Your task to perform on an android device: open app "DoorDash - Food Delivery" (install if not already installed) and go to login screen Image 0: 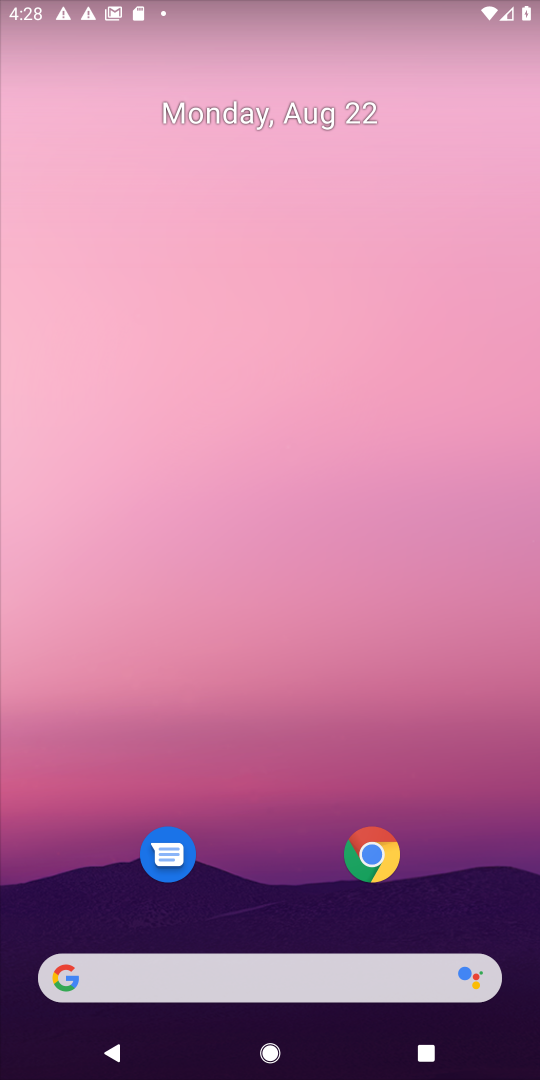
Step 0: drag from (266, 891) to (266, 82)
Your task to perform on an android device: open app "DoorDash - Food Delivery" (install if not already installed) and go to login screen Image 1: 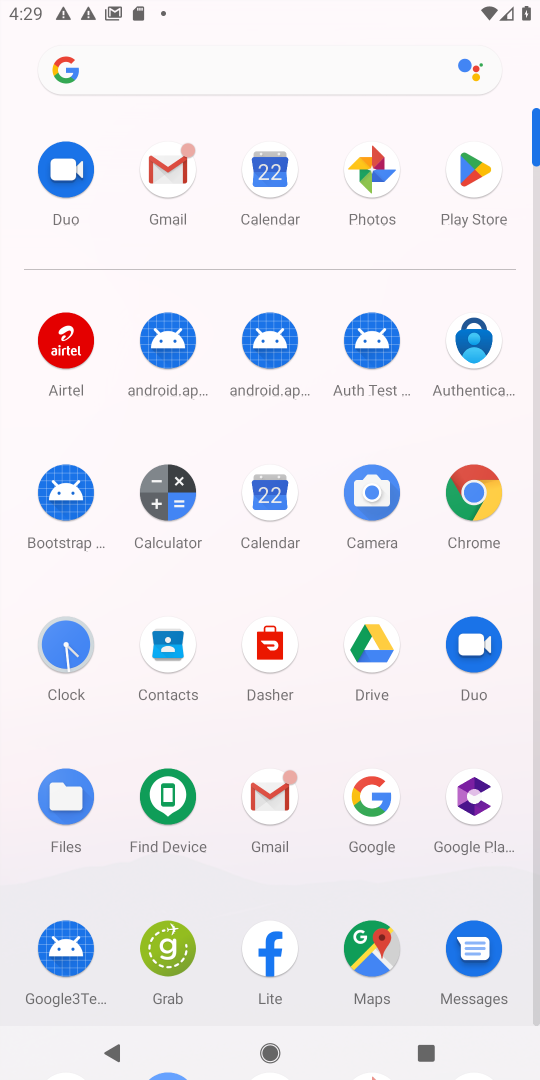
Step 1: click (469, 170)
Your task to perform on an android device: open app "DoorDash - Food Delivery" (install if not already installed) and go to login screen Image 2: 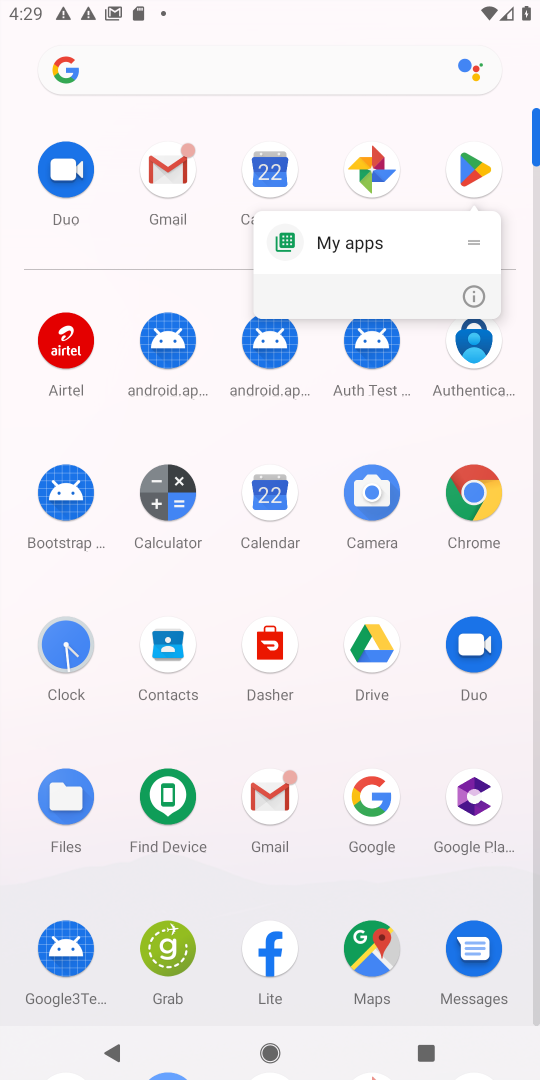
Step 2: click (469, 170)
Your task to perform on an android device: open app "DoorDash - Food Delivery" (install if not already installed) and go to login screen Image 3: 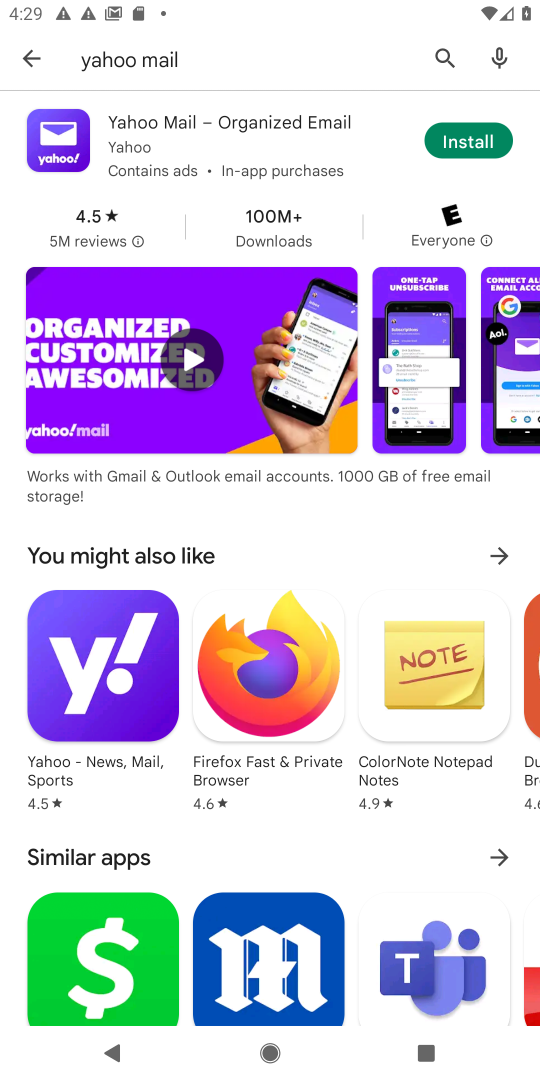
Step 3: click (440, 53)
Your task to perform on an android device: open app "DoorDash - Food Delivery" (install if not already installed) and go to login screen Image 4: 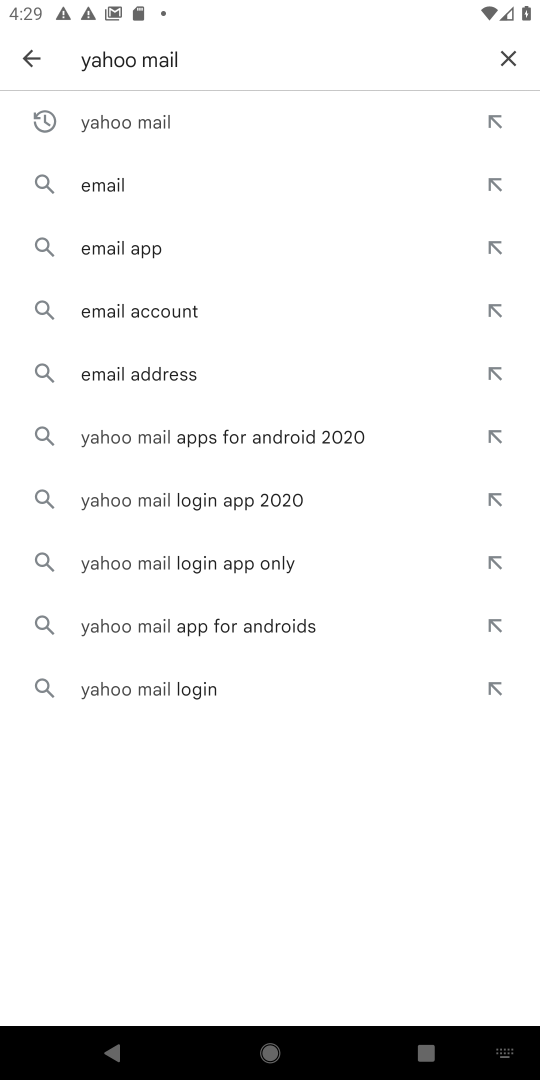
Step 4: click (501, 61)
Your task to perform on an android device: open app "DoorDash - Food Delivery" (install if not already installed) and go to login screen Image 5: 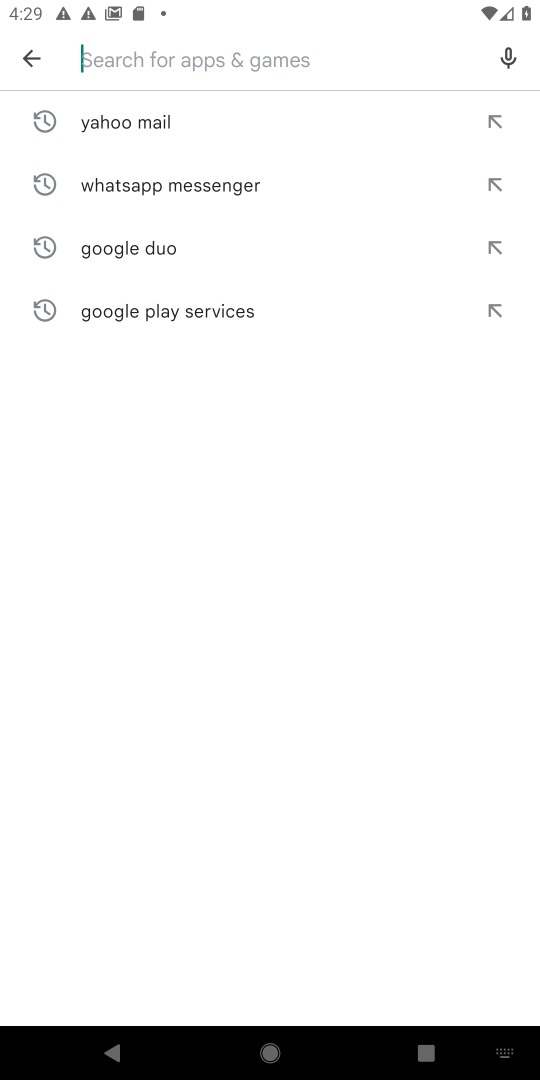
Step 5: type "DoorDash - Food Delivery"
Your task to perform on an android device: open app "DoorDash - Food Delivery" (install if not already installed) and go to login screen Image 6: 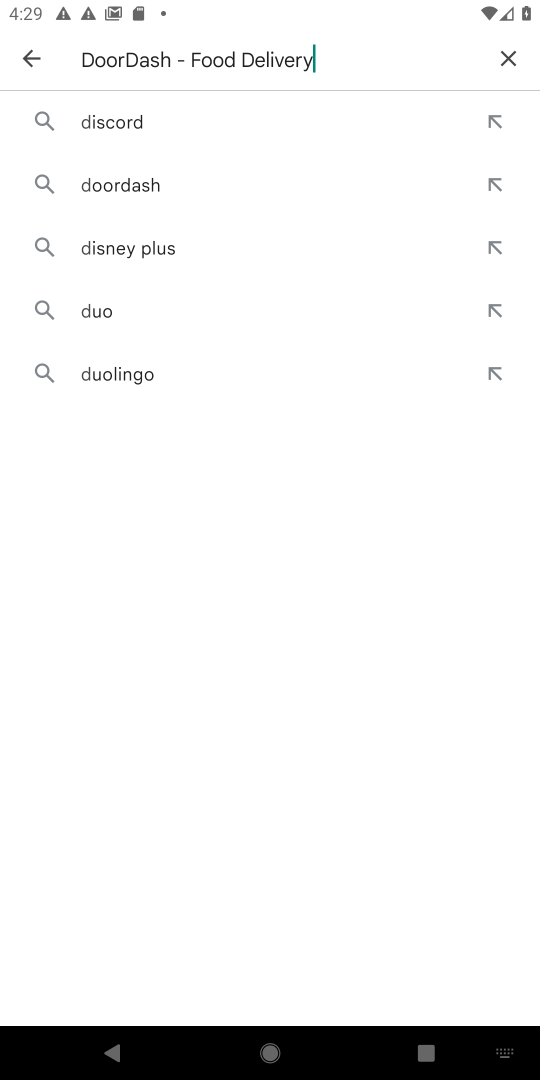
Step 6: type ""
Your task to perform on an android device: open app "DoorDash - Food Delivery" (install if not already installed) and go to login screen Image 7: 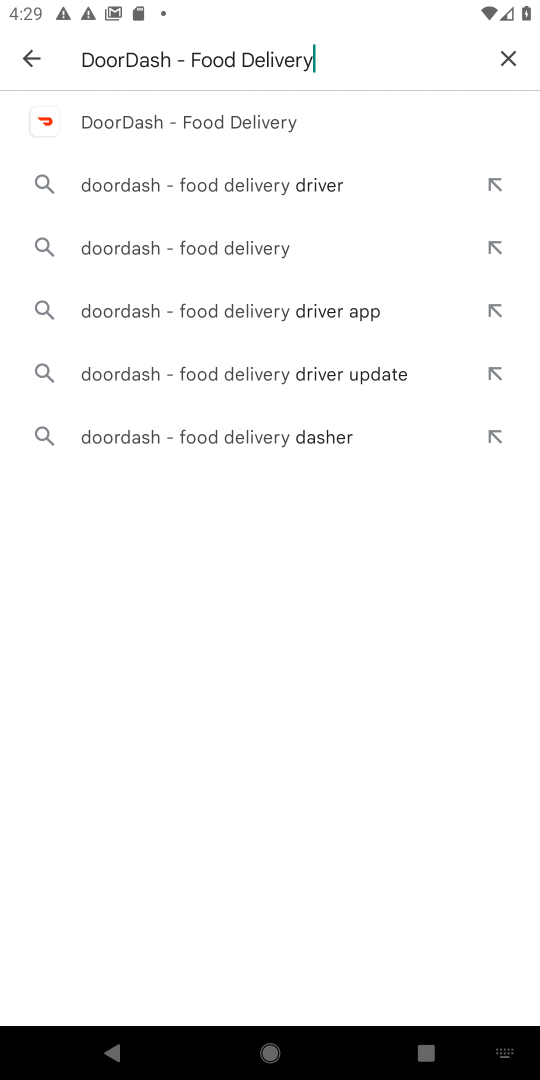
Step 7: click (221, 122)
Your task to perform on an android device: open app "DoorDash - Food Delivery" (install if not already installed) and go to login screen Image 8: 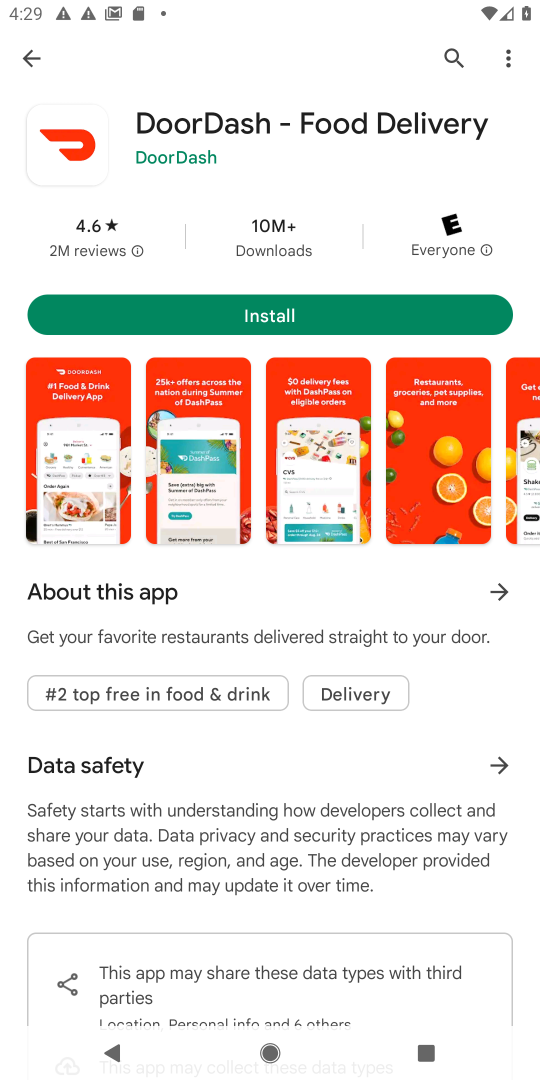
Step 8: click (270, 316)
Your task to perform on an android device: open app "DoorDash - Food Delivery" (install if not already installed) and go to login screen Image 9: 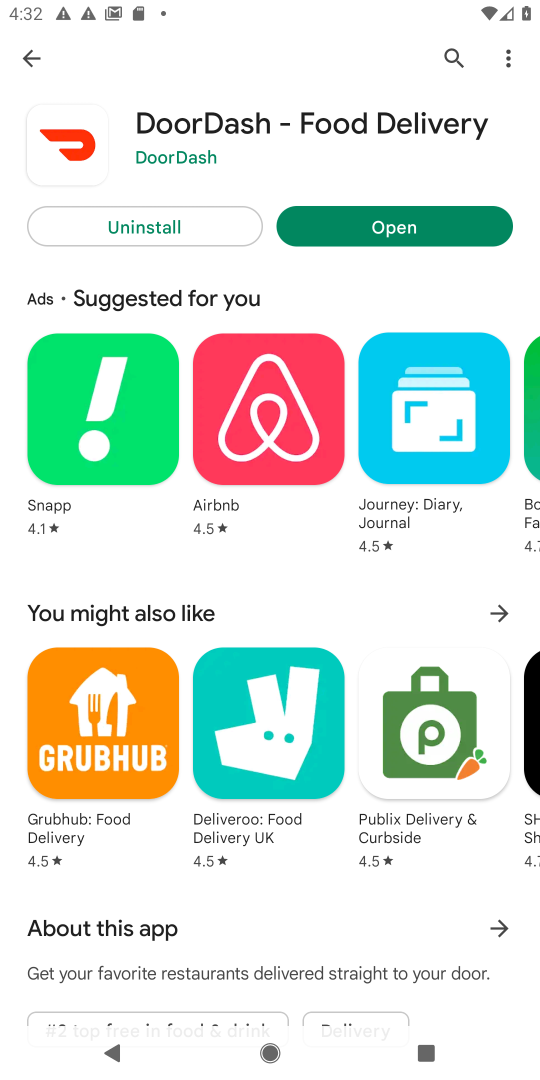
Step 9: click (412, 227)
Your task to perform on an android device: open app "DoorDash - Food Delivery" (install if not already installed) and go to login screen Image 10: 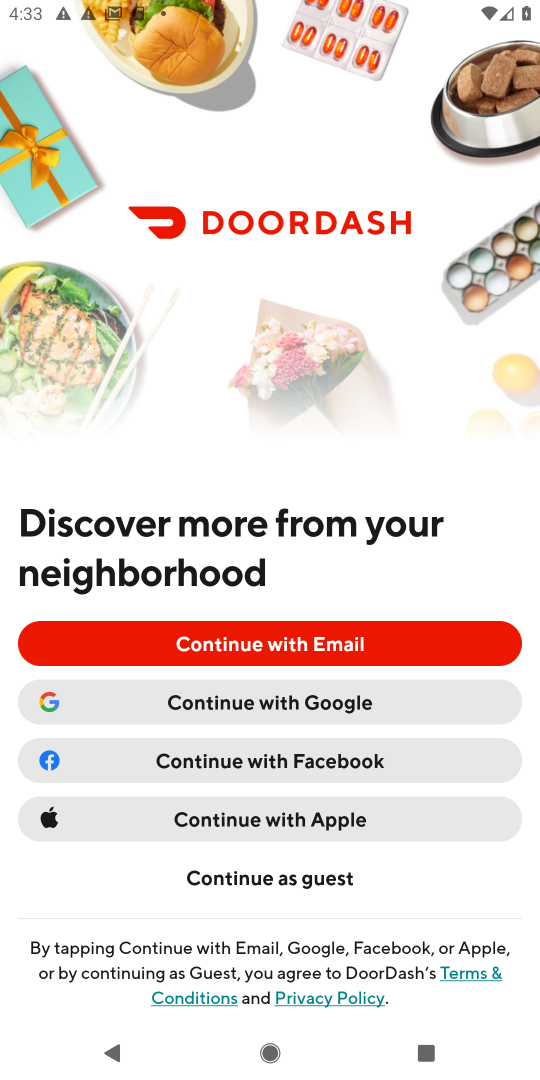
Step 10: task complete